Your task to perform on an android device: Open ESPN.com Image 0: 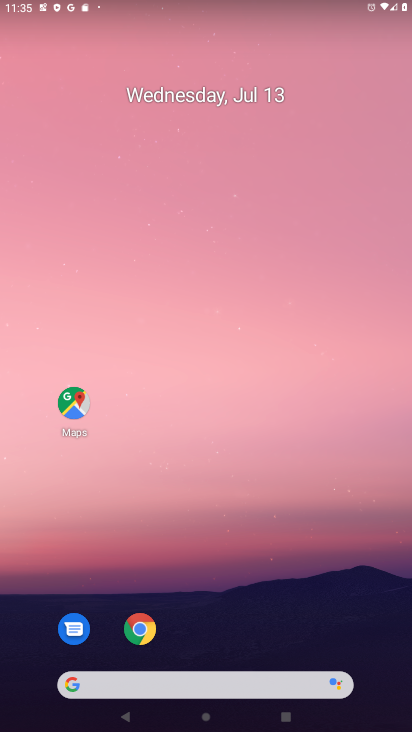
Step 0: drag from (221, 652) to (259, 405)
Your task to perform on an android device: Open ESPN.com Image 1: 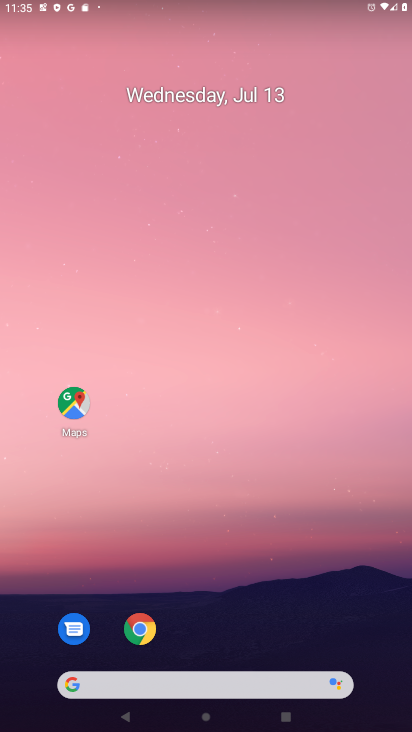
Step 1: click (211, 679)
Your task to perform on an android device: Open ESPN.com Image 2: 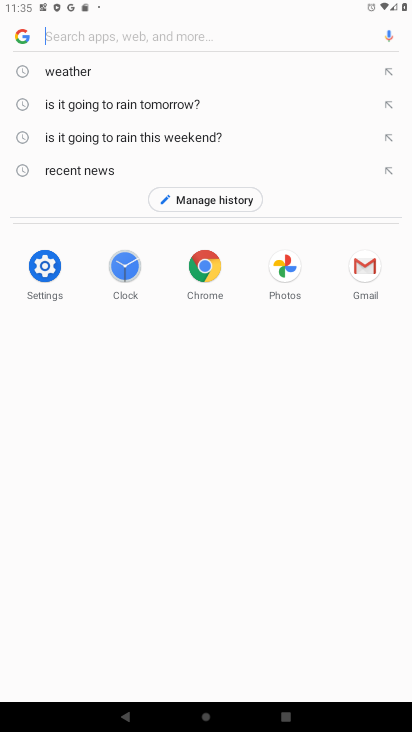
Step 2: type "espn.com"
Your task to perform on an android device: Open ESPN.com Image 3: 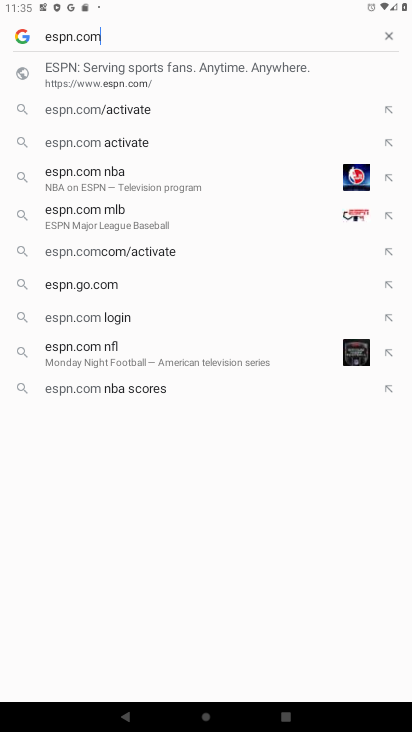
Step 3: click (249, 91)
Your task to perform on an android device: Open ESPN.com Image 4: 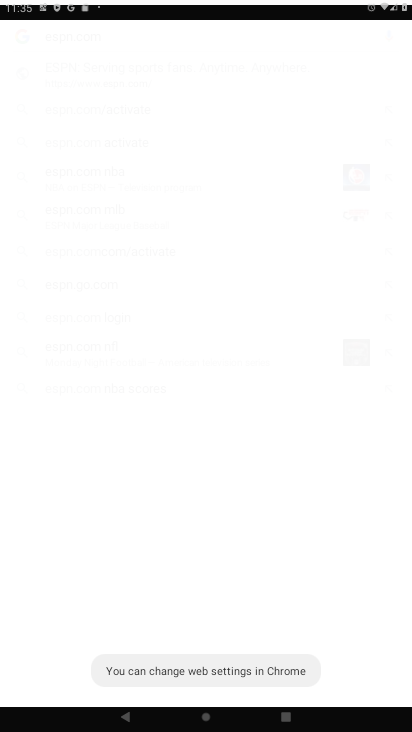
Step 4: task complete